Your task to perform on an android device: turn on showing notifications on the lock screen Image 0: 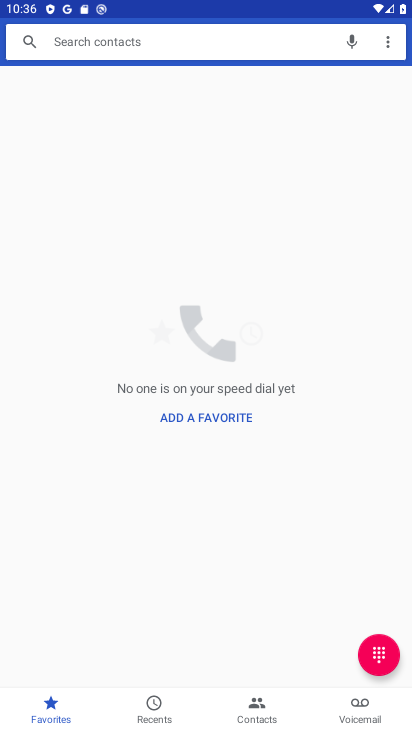
Step 0: press home button
Your task to perform on an android device: turn on showing notifications on the lock screen Image 1: 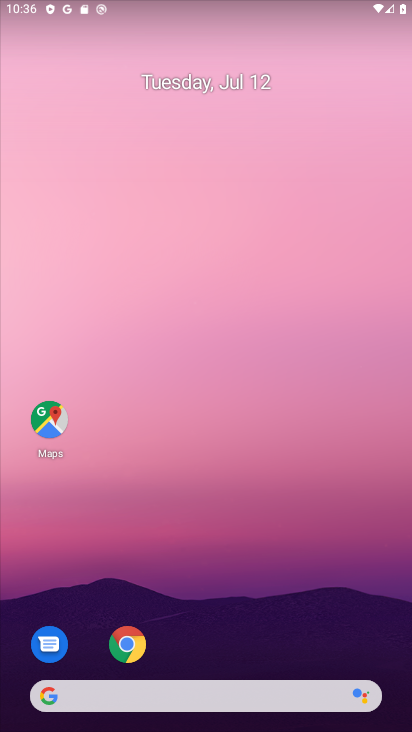
Step 1: drag from (173, 666) to (271, 57)
Your task to perform on an android device: turn on showing notifications on the lock screen Image 2: 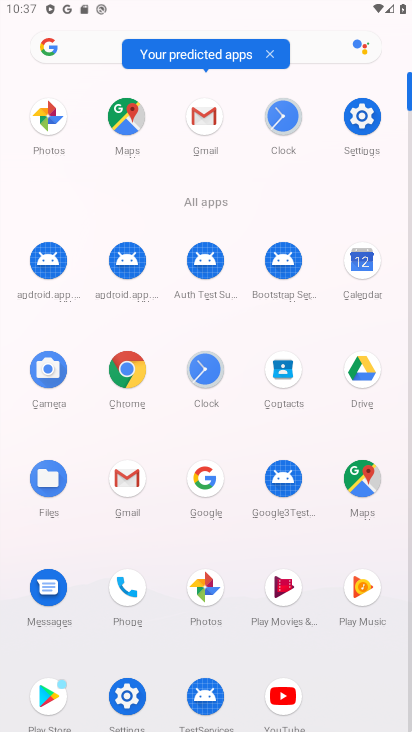
Step 2: click (120, 699)
Your task to perform on an android device: turn on showing notifications on the lock screen Image 3: 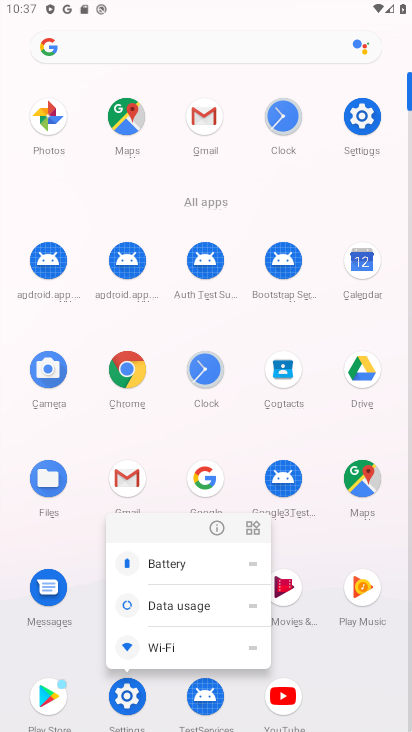
Step 3: click (121, 699)
Your task to perform on an android device: turn on showing notifications on the lock screen Image 4: 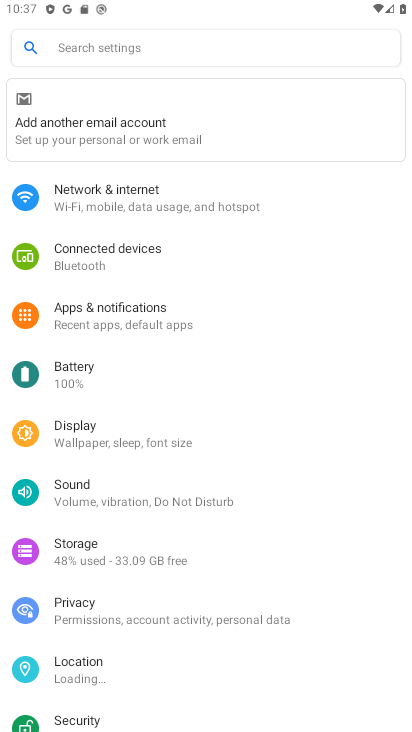
Step 4: click (161, 327)
Your task to perform on an android device: turn on showing notifications on the lock screen Image 5: 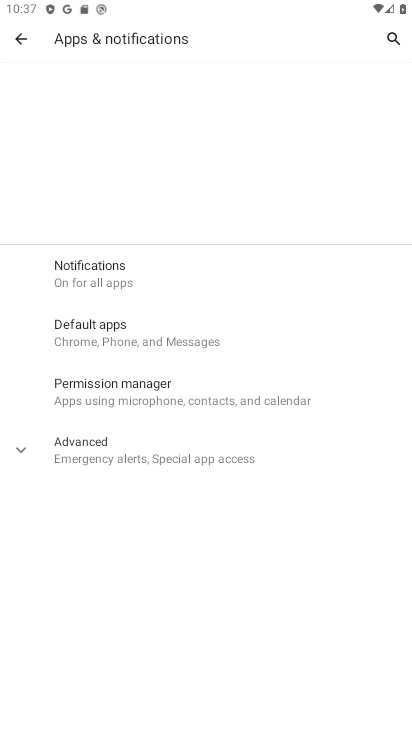
Step 5: click (115, 282)
Your task to perform on an android device: turn on showing notifications on the lock screen Image 6: 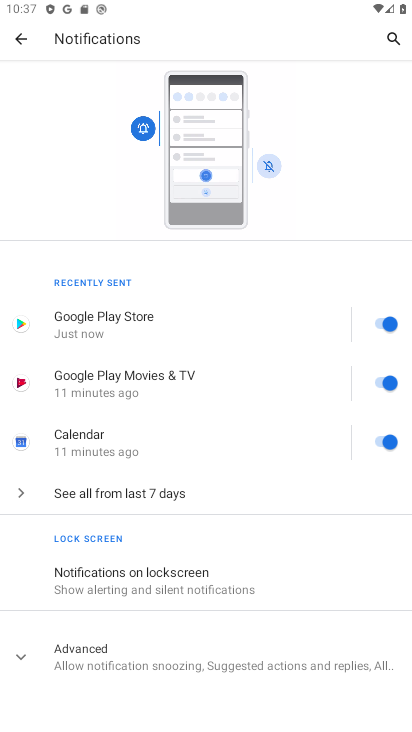
Step 6: click (231, 582)
Your task to perform on an android device: turn on showing notifications on the lock screen Image 7: 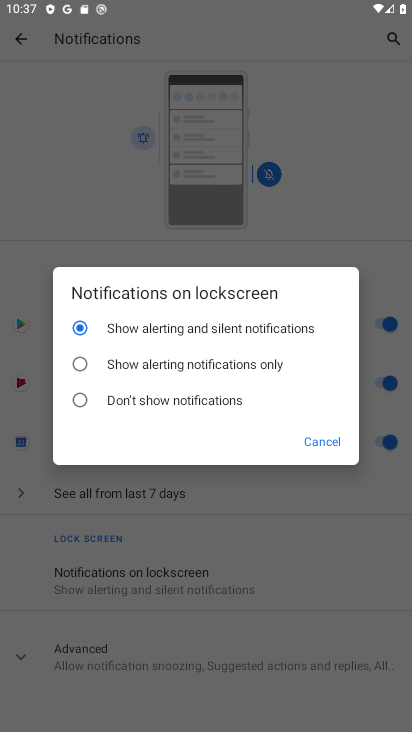
Step 7: task complete